Your task to perform on an android device: change notifications settings Image 0: 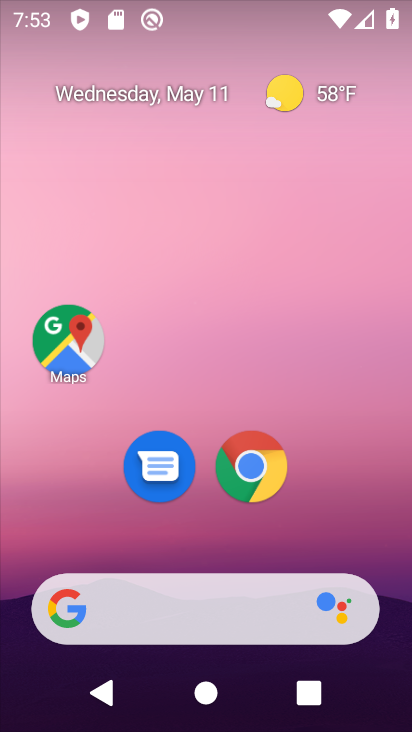
Step 0: drag from (208, 539) to (224, 26)
Your task to perform on an android device: change notifications settings Image 1: 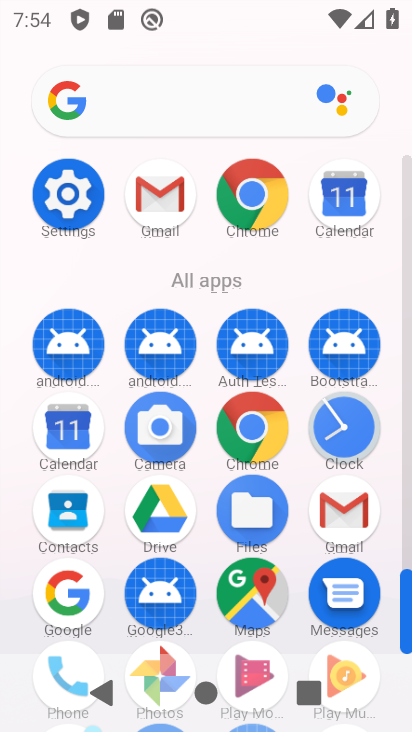
Step 1: click (57, 212)
Your task to perform on an android device: change notifications settings Image 2: 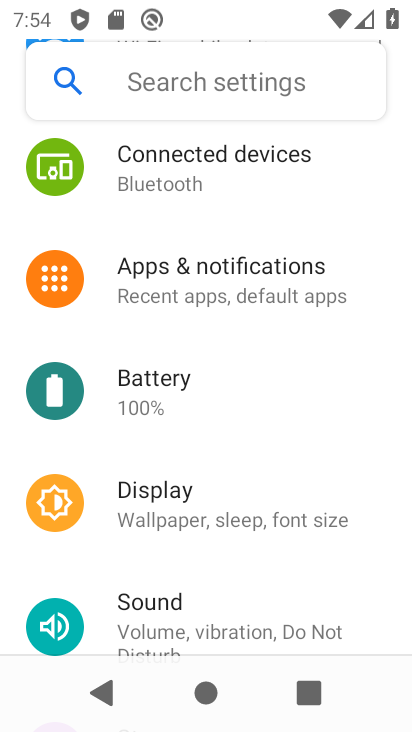
Step 2: click (263, 294)
Your task to perform on an android device: change notifications settings Image 3: 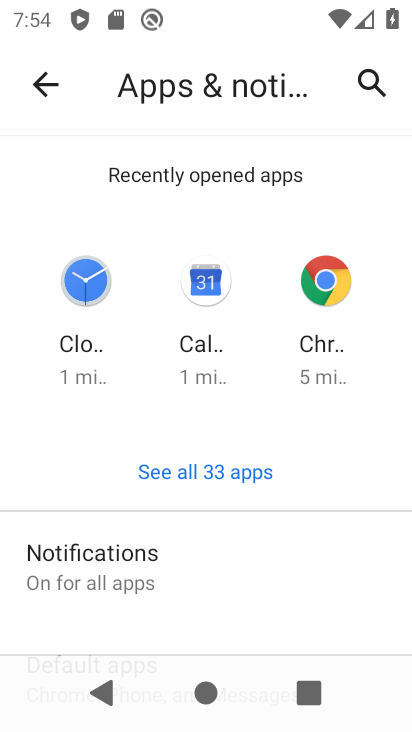
Step 3: click (217, 566)
Your task to perform on an android device: change notifications settings Image 4: 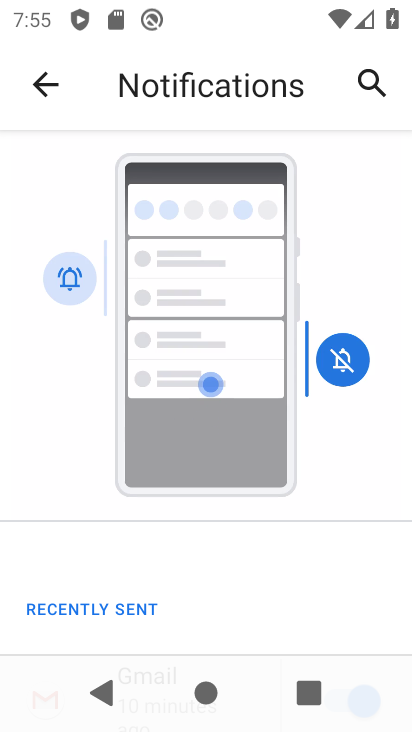
Step 4: drag from (162, 603) to (190, 282)
Your task to perform on an android device: change notifications settings Image 5: 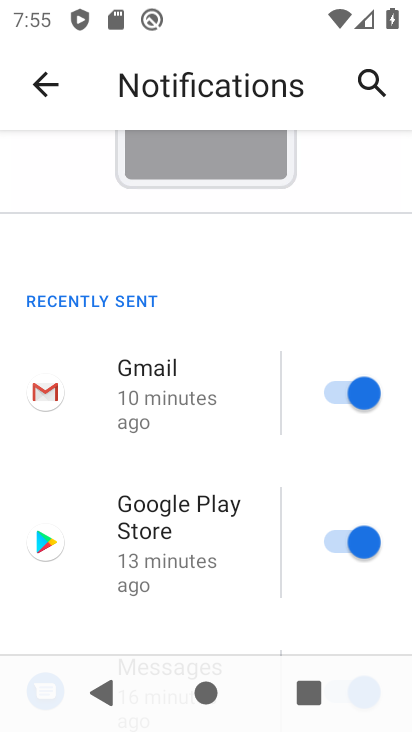
Step 5: drag from (180, 571) to (188, 238)
Your task to perform on an android device: change notifications settings Image 6: 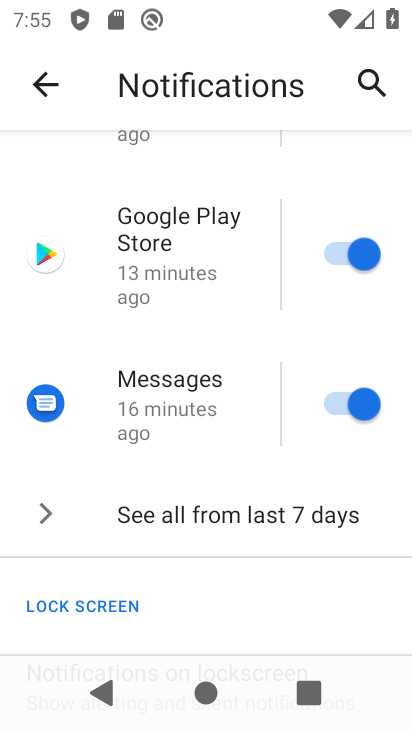
Step 6: click (199, 524)
Your task to perform on an android device: change notifications settings Image 7: 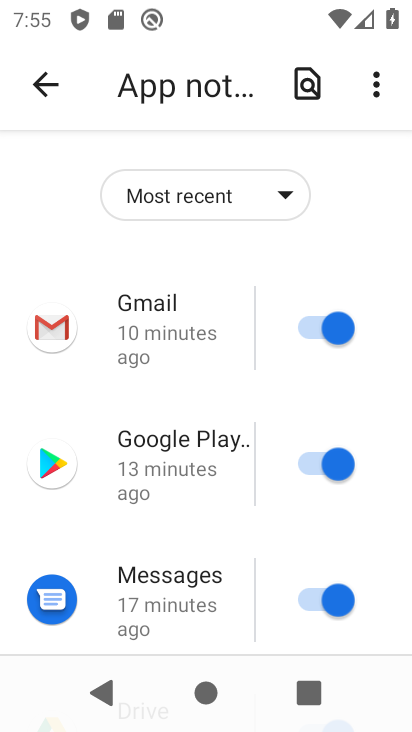
Step 7: click (332, 329)
Your task to perform on an android device: change notifications settings Image 8: 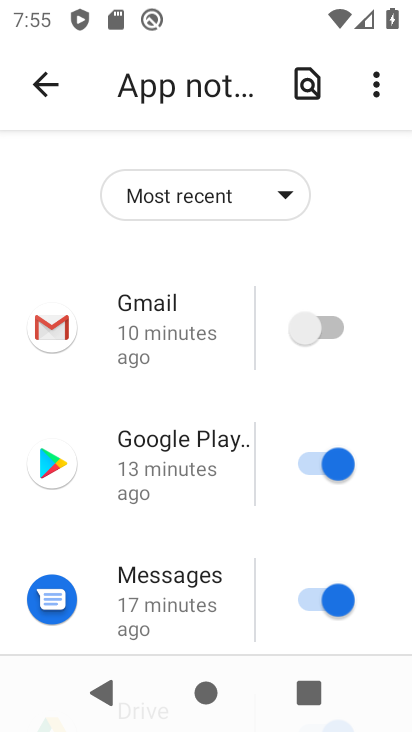
Step 8: click (309, 456)
Your task to perform on an android device: change notifications settings Image 9: 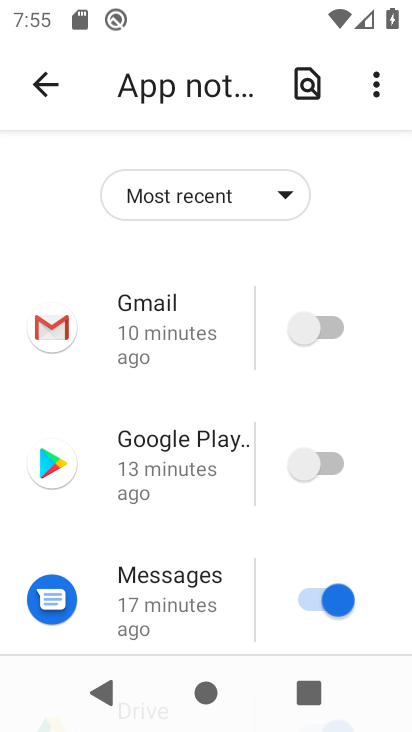
Step 9: click (307, 584)
Your task to perform on an android device: change notifications settings Image 10: 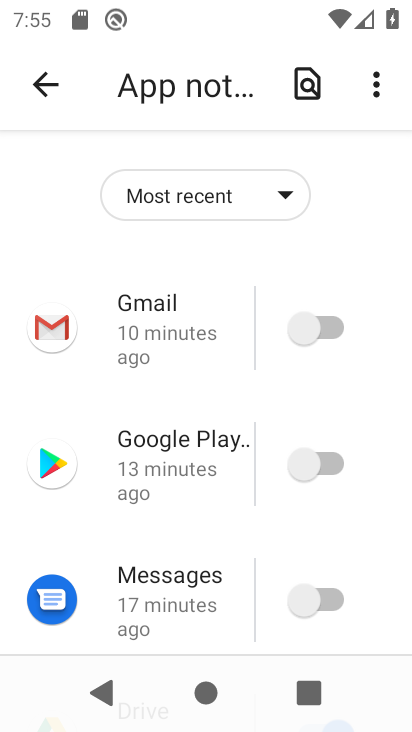
Step 10: drag from (188, 599) to (199, 195)
Your task to perform on an android device: change notifications settings Image 11: 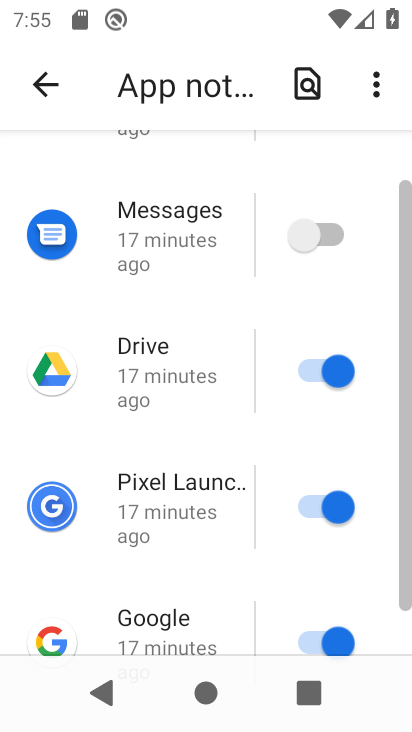
Step 11: click (273, 374)
Your task to perform on an android device: change notifications settings Image 12: 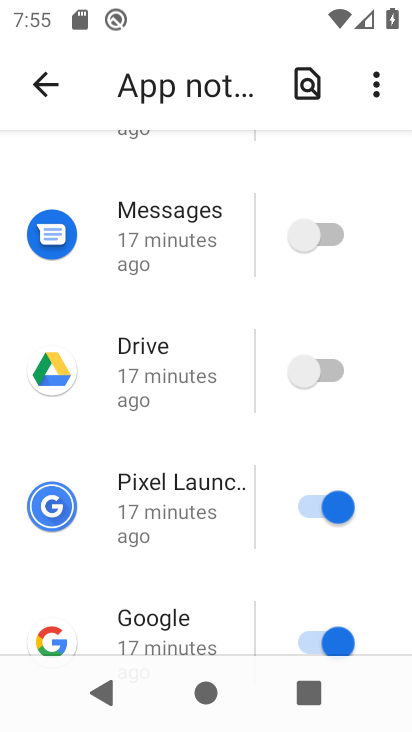
Step 12: click (312, 512)
Your task to perform on an android device: change notifications settings Image 13: 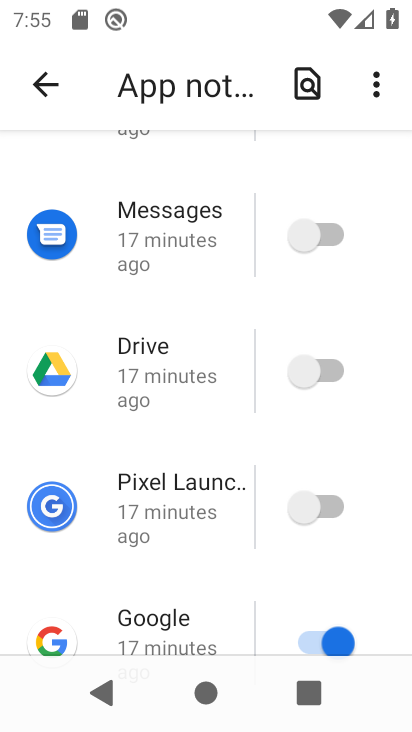
Step 13: click (321, 649)
Your task to perform on an android device: change notifications settings Image 14: 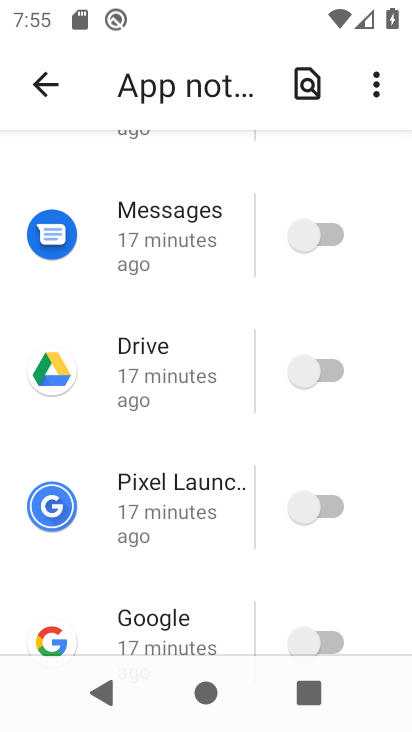
Step 14: drag from (211, 600) to (237, 179)
Your task to perform on an android device: change notifications settings Image 15: 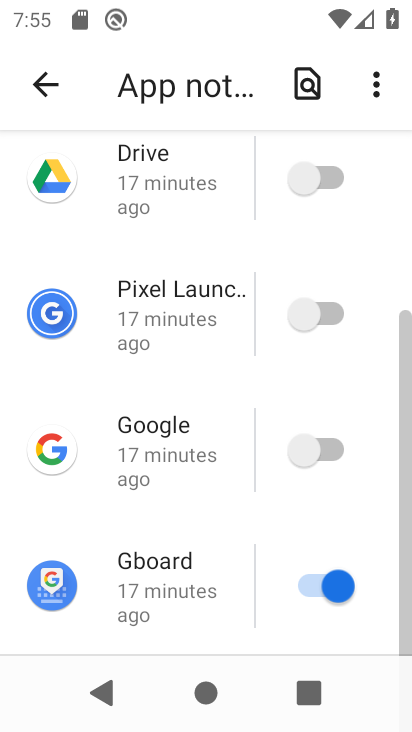
Step 15: click (318, 578)
Your task to perform on an android device: change notifications settings Image 16: 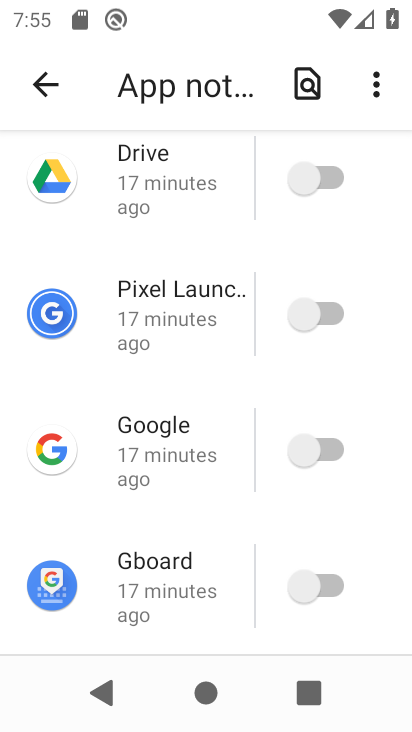
Step 16: click (39, 96)
Your task to perform on an android device: change notifications settings Image 17: 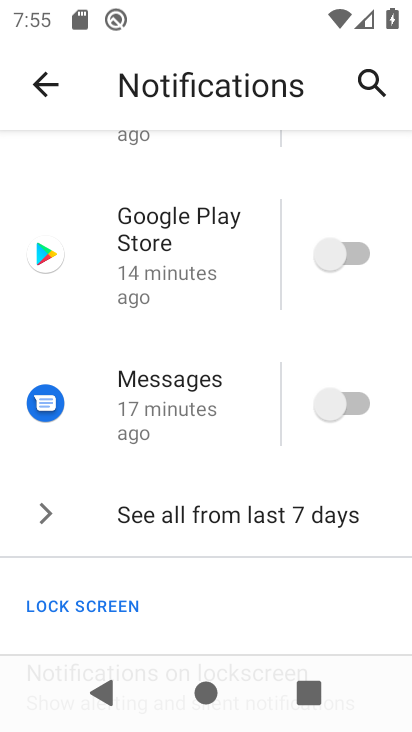
Step 17: drag from (176, 613) to (203, 116)
Your task to perform on an android device: change notifications settings Image 18: 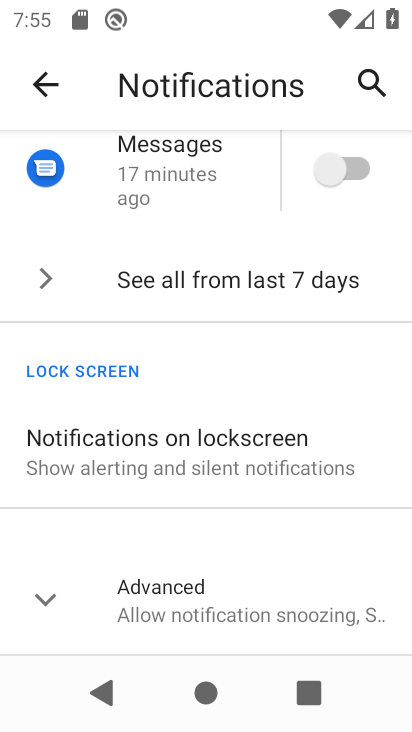
Step 18: click (186, 442)
Your task to perform on an android device: change notifications settings Image 19: 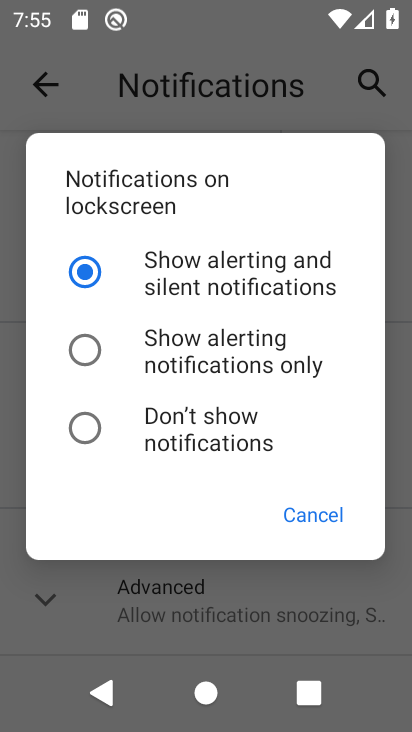
Step 19: click (160, 340)
Your task to perform on an android device: change notifications settings Image 20: 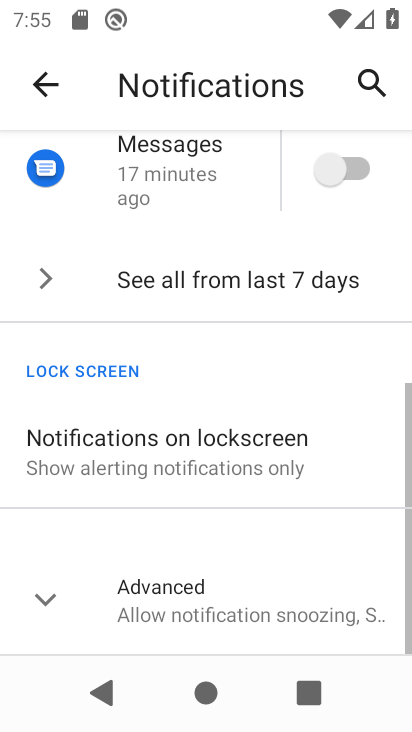
Step 20: click (141, 608)
Your task to perform on an android device: change notifications settings Image 21: 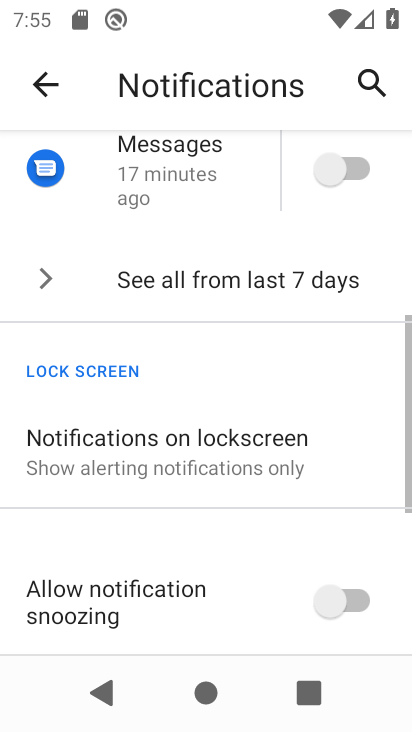
Step 21: drag from (171, 518) to (243, 102)
Your task to perform on an android device: change notifications settings Image 22: 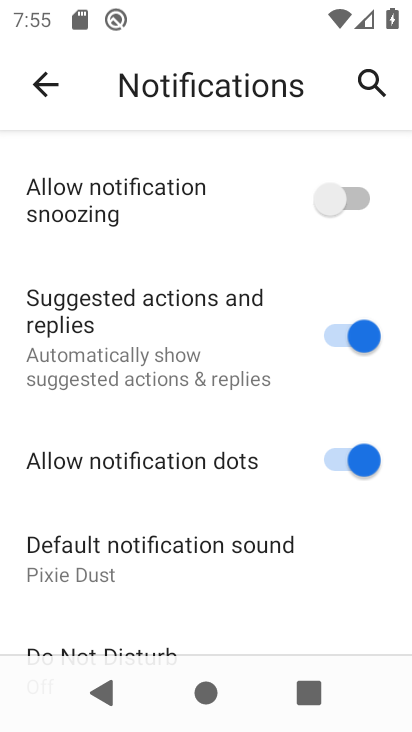
Step 22: click (340, 209)
Your task to perform on an android device: change notifications settings Image 23: 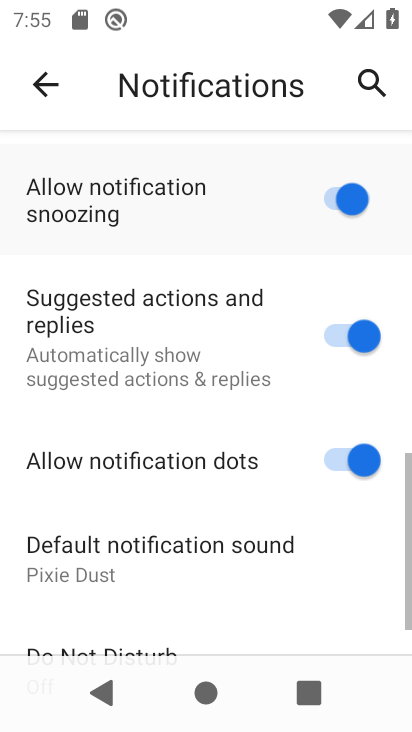
Step 23: click (350, 345)
Your task to perform on an android device: change notifications settings Image 24: 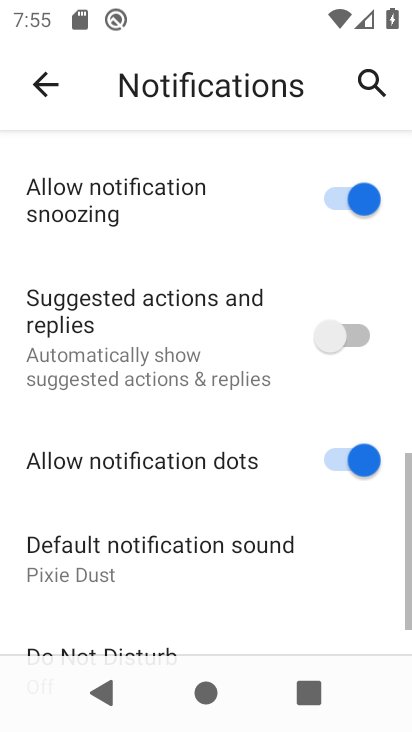
Step 24: click (333, 464)
Your task to perform on an android device: change notifications settings Image 25: 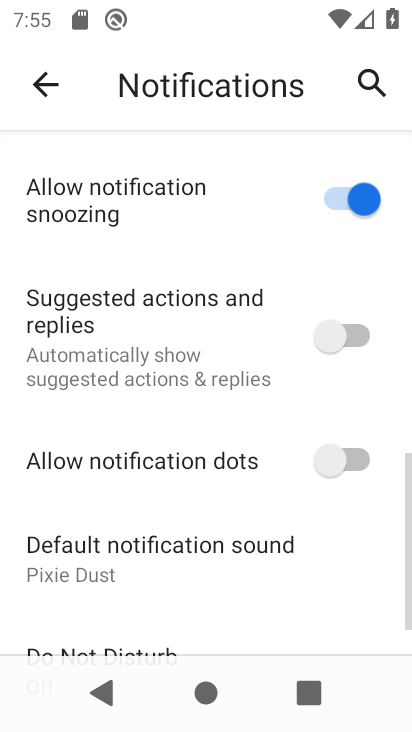
Step 25: task complete